Your task to perform on an android device: Clear the shopping cart on bestbuy.com. Add "dell xps" to the cart on bestbuy.com Image 0: 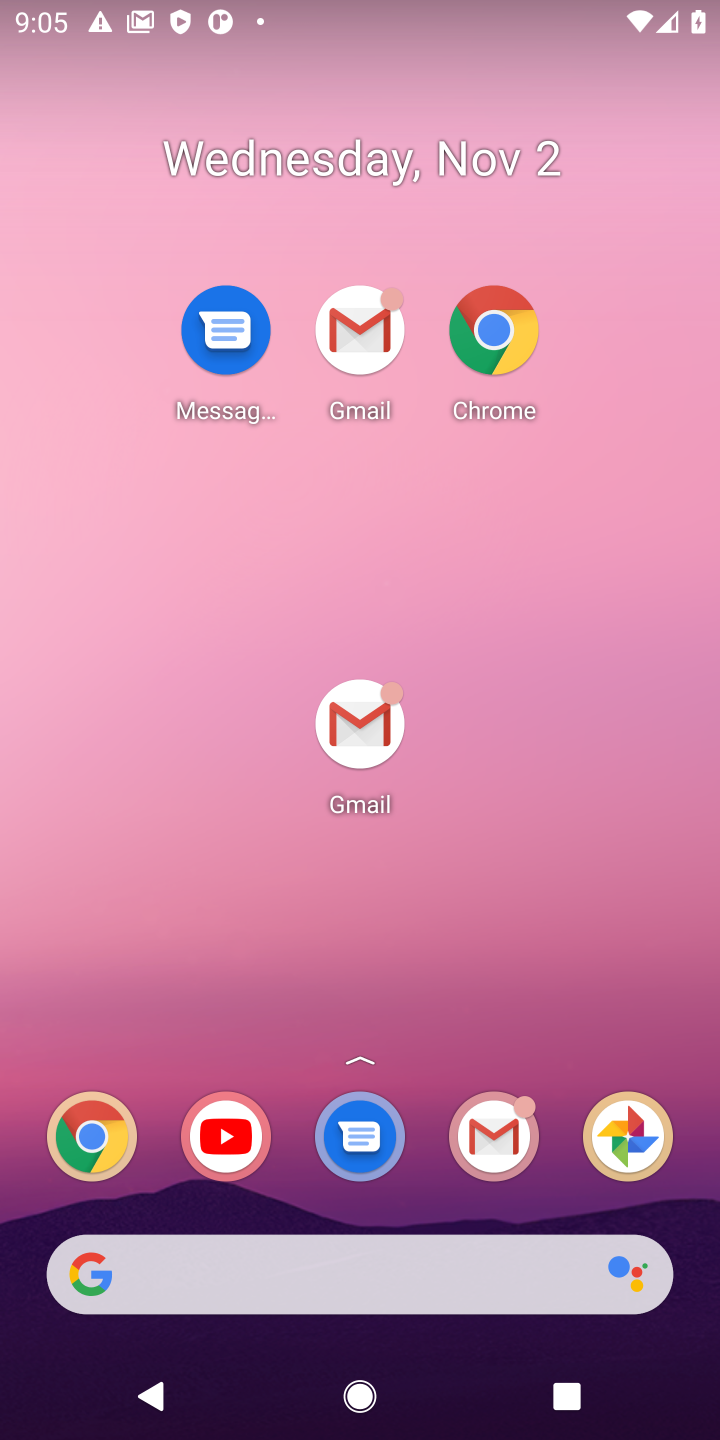
Step 0: drag from (316, 917) to (312, 453)
Your task to perform on an android device: Clear the shopping cart on bestbuy.com. Add "dell xps" to the cart on bestbuy.com Image 1: 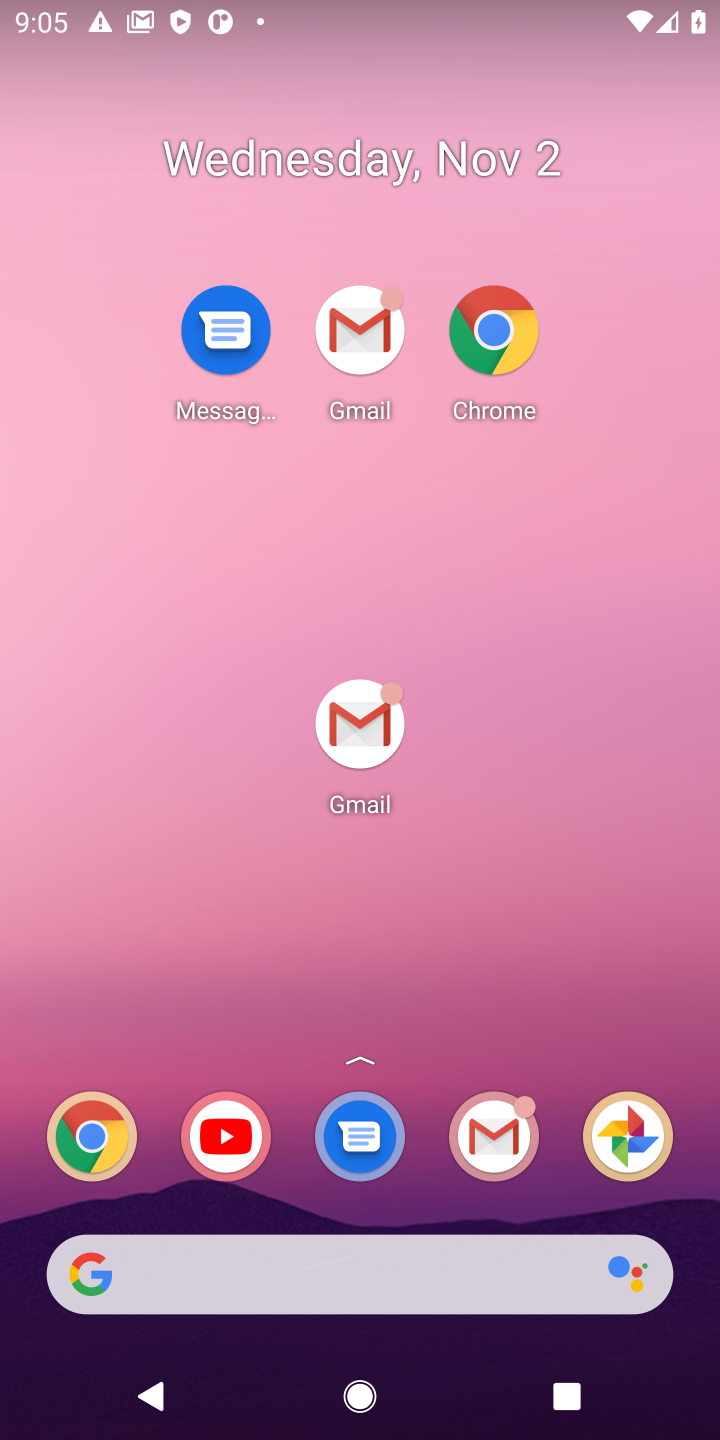
Step 1: drag from (288, 1182) to (303, 184)
Your task to perform on an android device: Clear the shopping cart on bestbuy.com. Add "dell xps" to the cart on bestbuy.com Image 2: 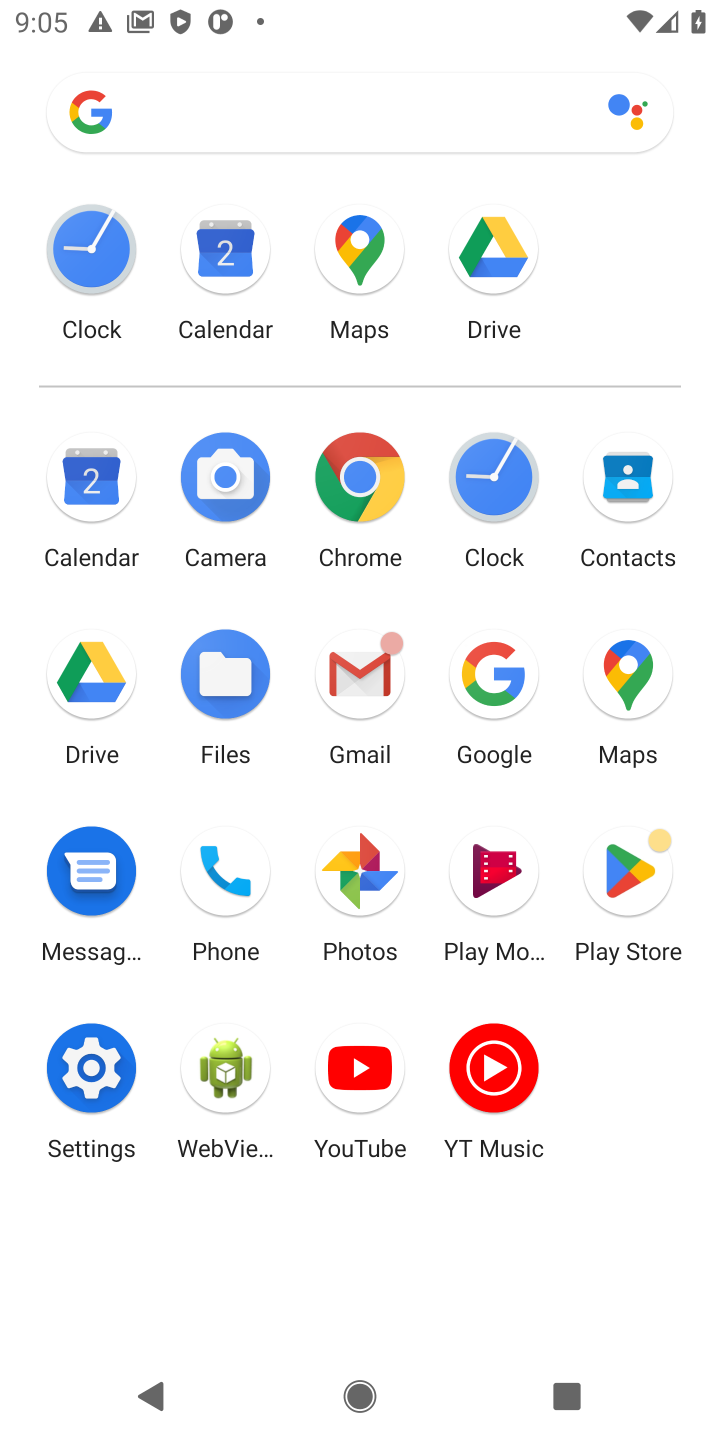
Step 2: click (488, 639)
Your task to perform on an android device: Clear the shopping cart on bestbuy.com. Add "dell xps" to the cart on bestbuy.com Image 3: 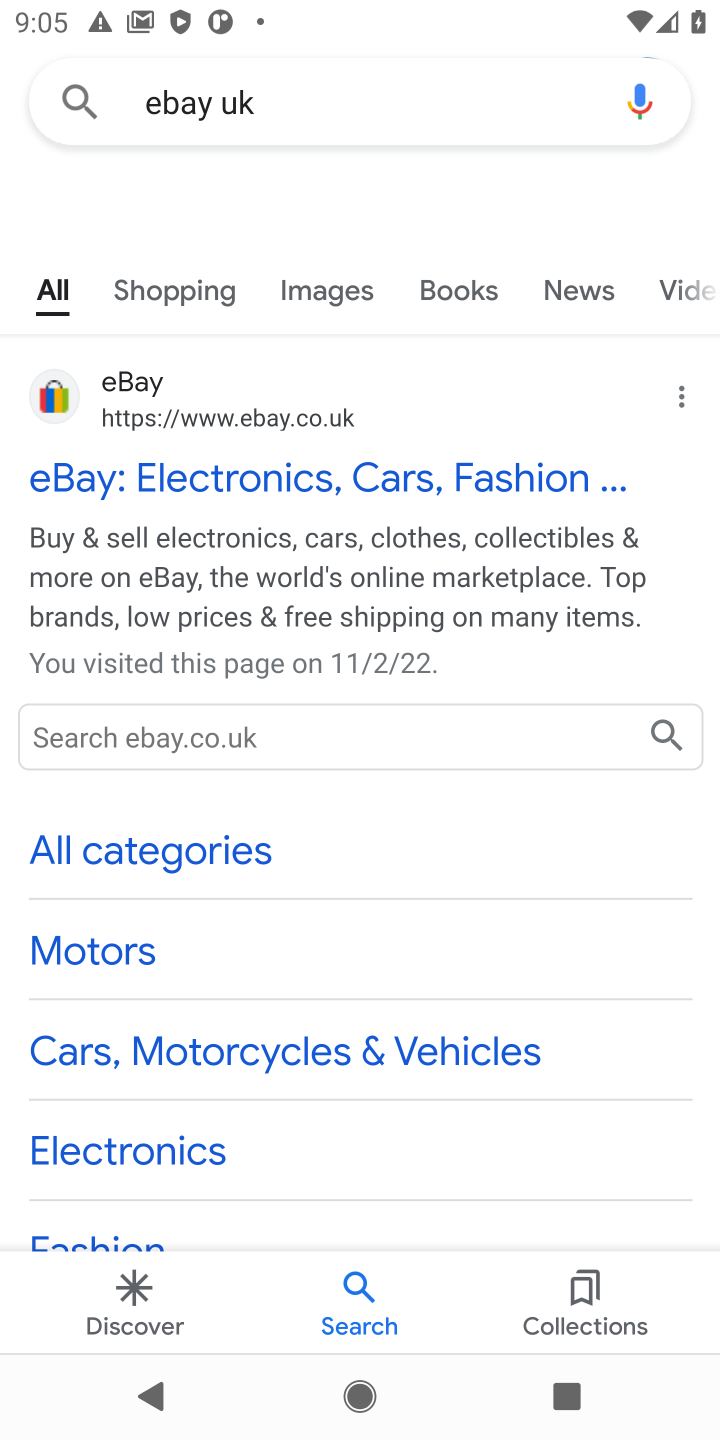
Step 3: click (299, 91)
Your task to perform on an android device: Clear the shopping cart on bestbuy.com. Add "dell xps" to the cart on bestbuy.com Image 4: 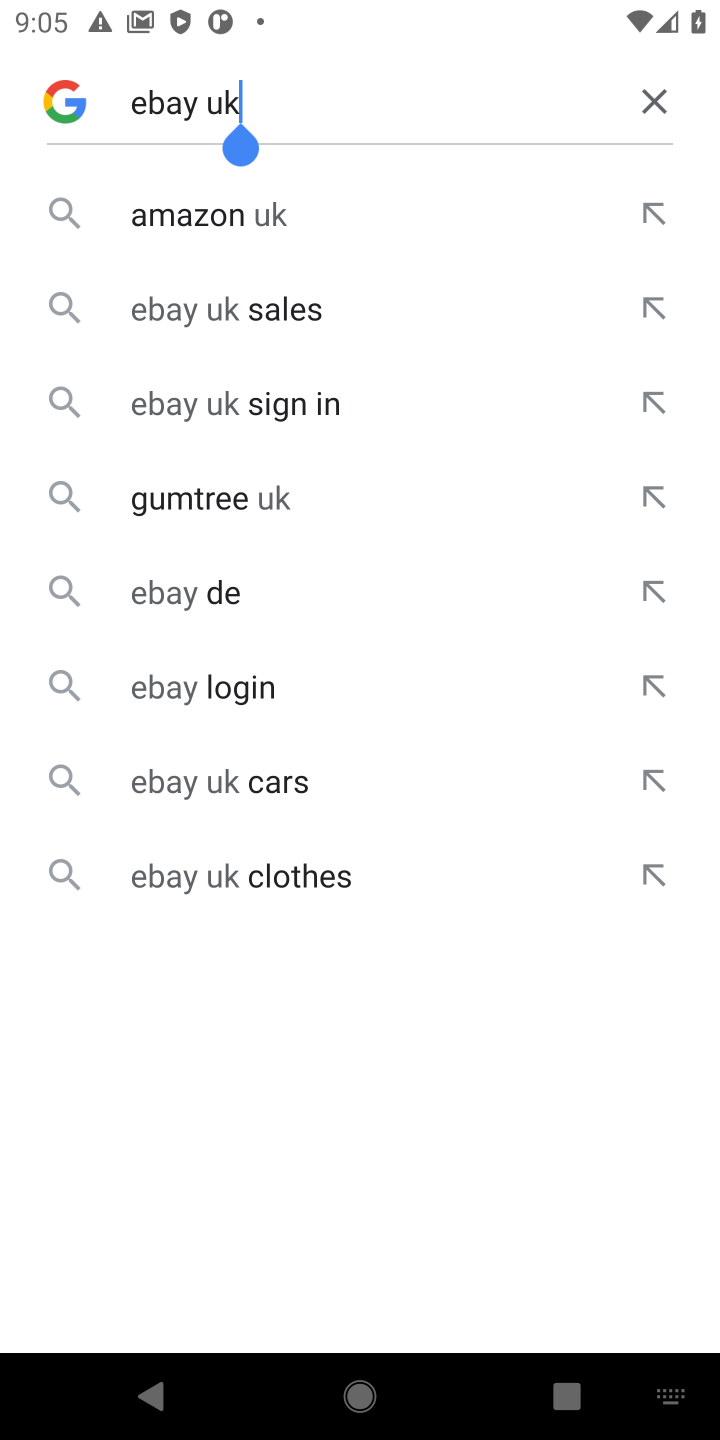
Step 4: click (644, 91)
Your task to perform on an android device: Clear the shopping cart on bestbuy.com. Add "dell xps" to the cart on bestbuy.com Image 5: 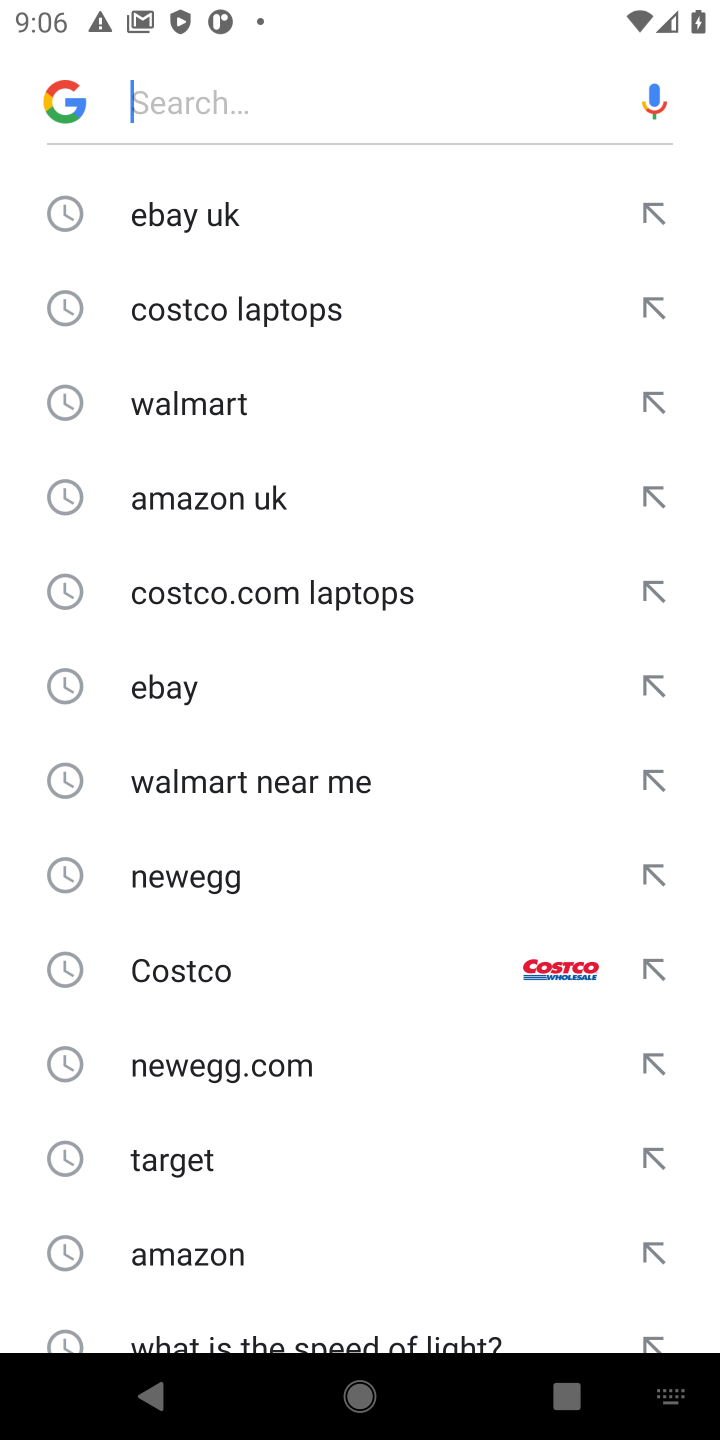
Step 5: click (311, 95)
Your task to perform on an android device: Clear the shopping cart on bestbuy.com. Add "dell xps" to the cart on bestbuy.com Image 6: 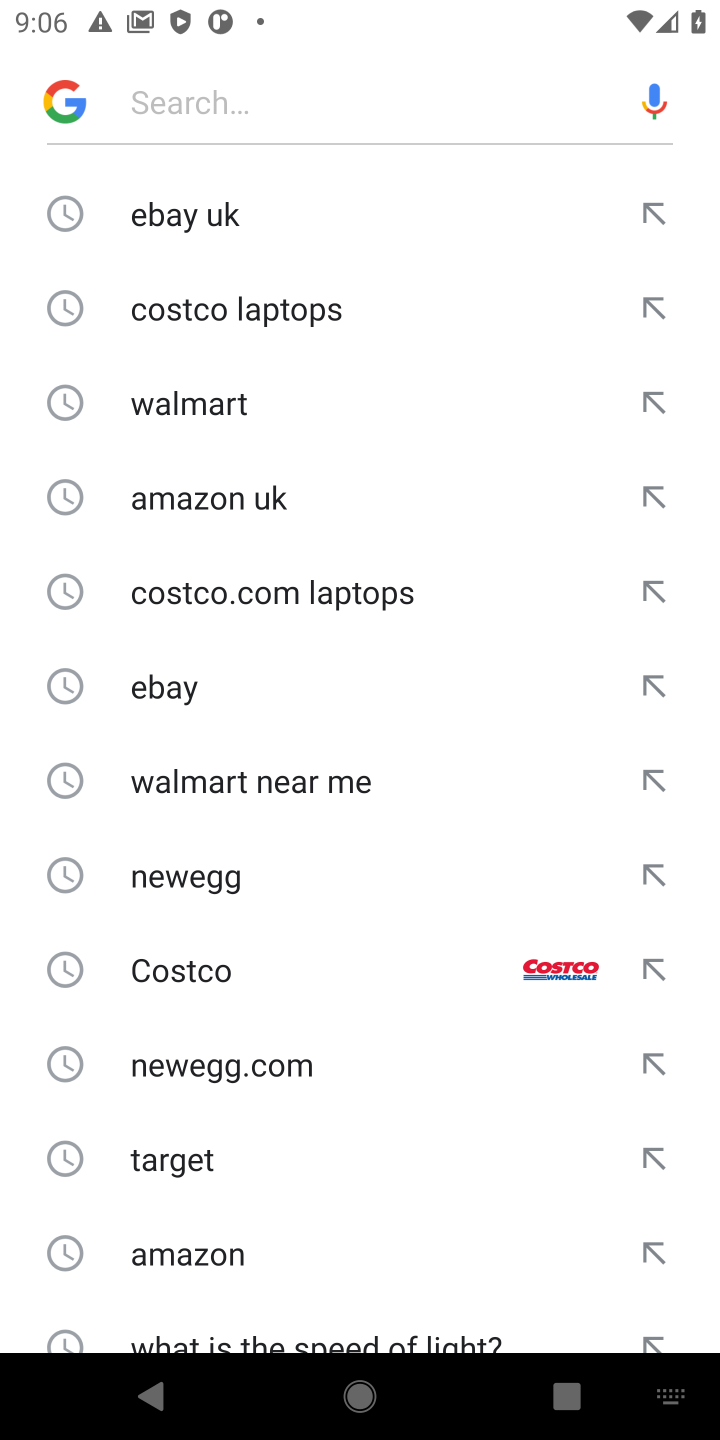
Step 6: type "bestbuy "
Your task to perform on an android device: Clear the shopping cart on bestbuy.com. Add "dell xps" to the cart on bestbuy.com Image 7: 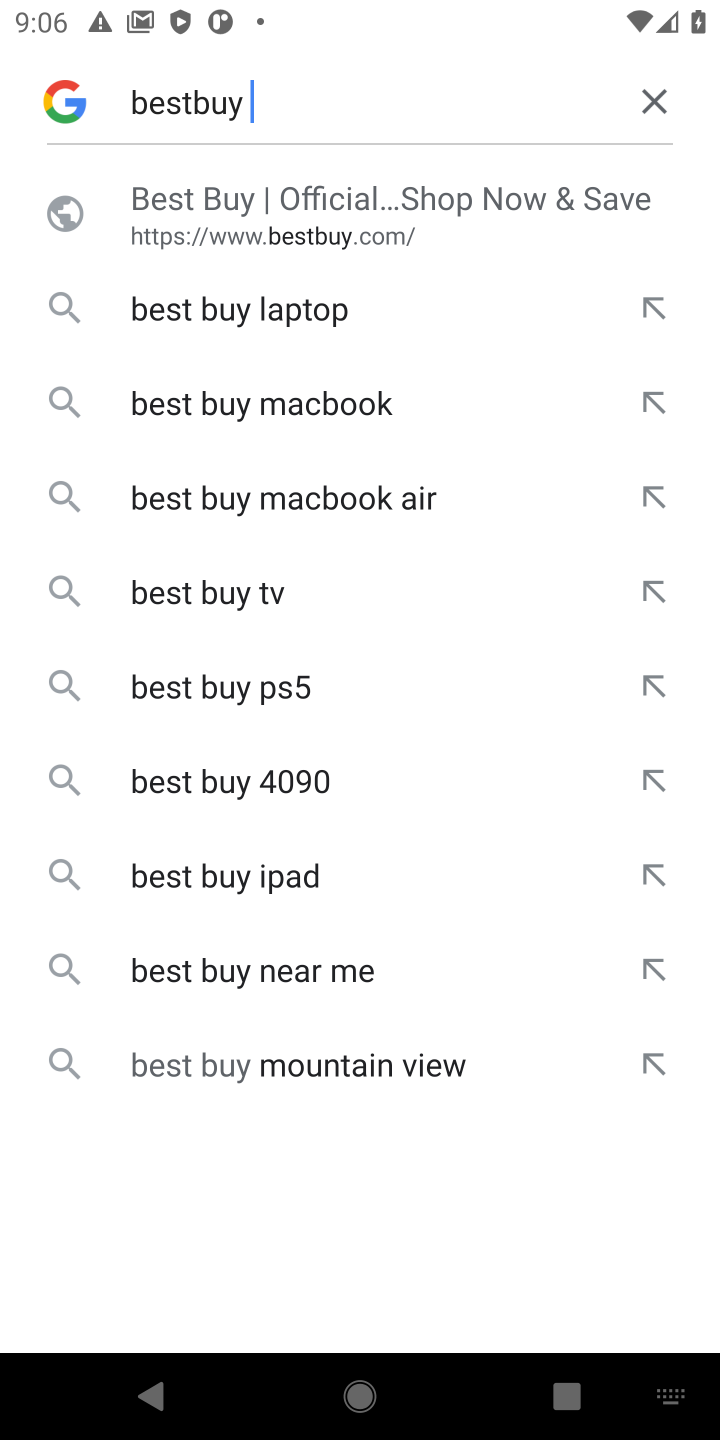
Step 7: click (219, 228)
Your task to perform on an android device: Clear the shopping cart on bestbuy.com. Add "dell xps" to the cart on bestbuy.com Image 8: 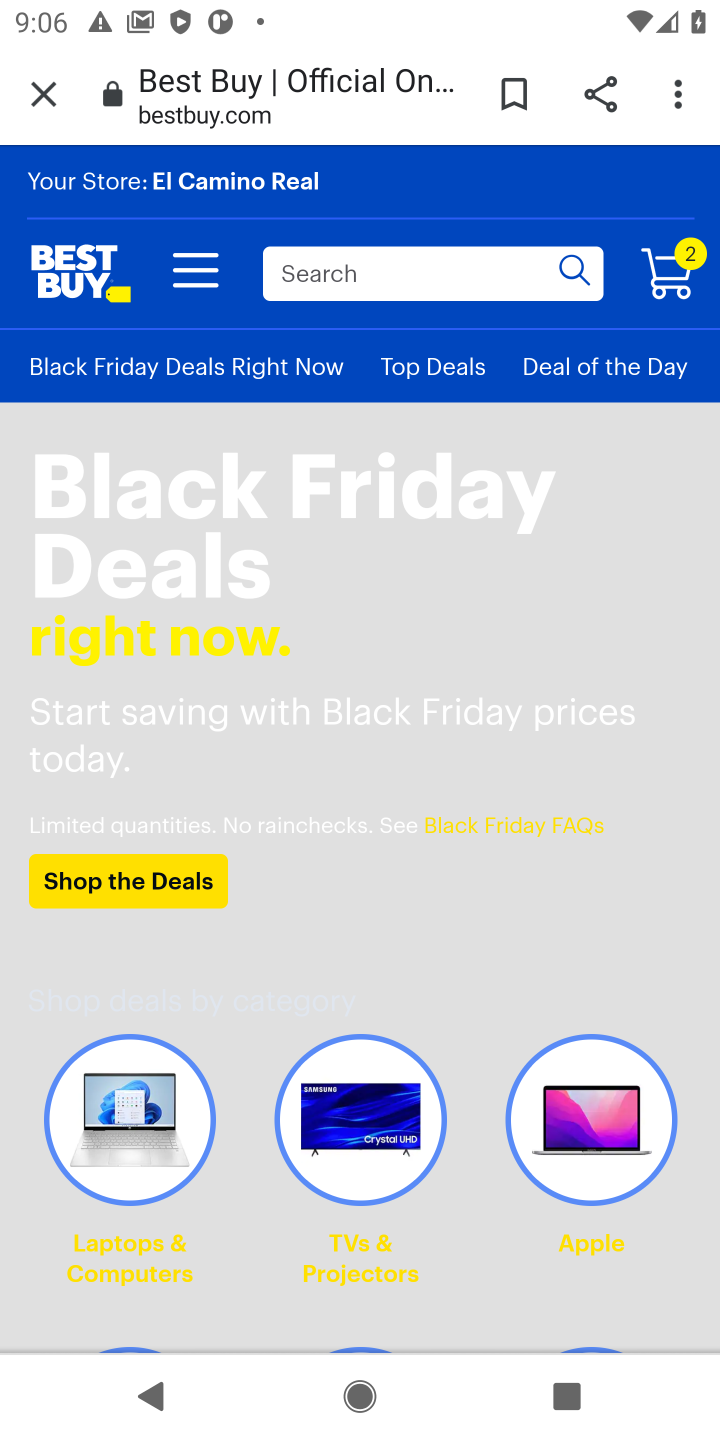
Step 8: click (319, 264)
Your task to perform on an android device: Clear the shopping cart on bestbuy.com. Add "dell xps" to the cart on bestbuy.com Image 9: 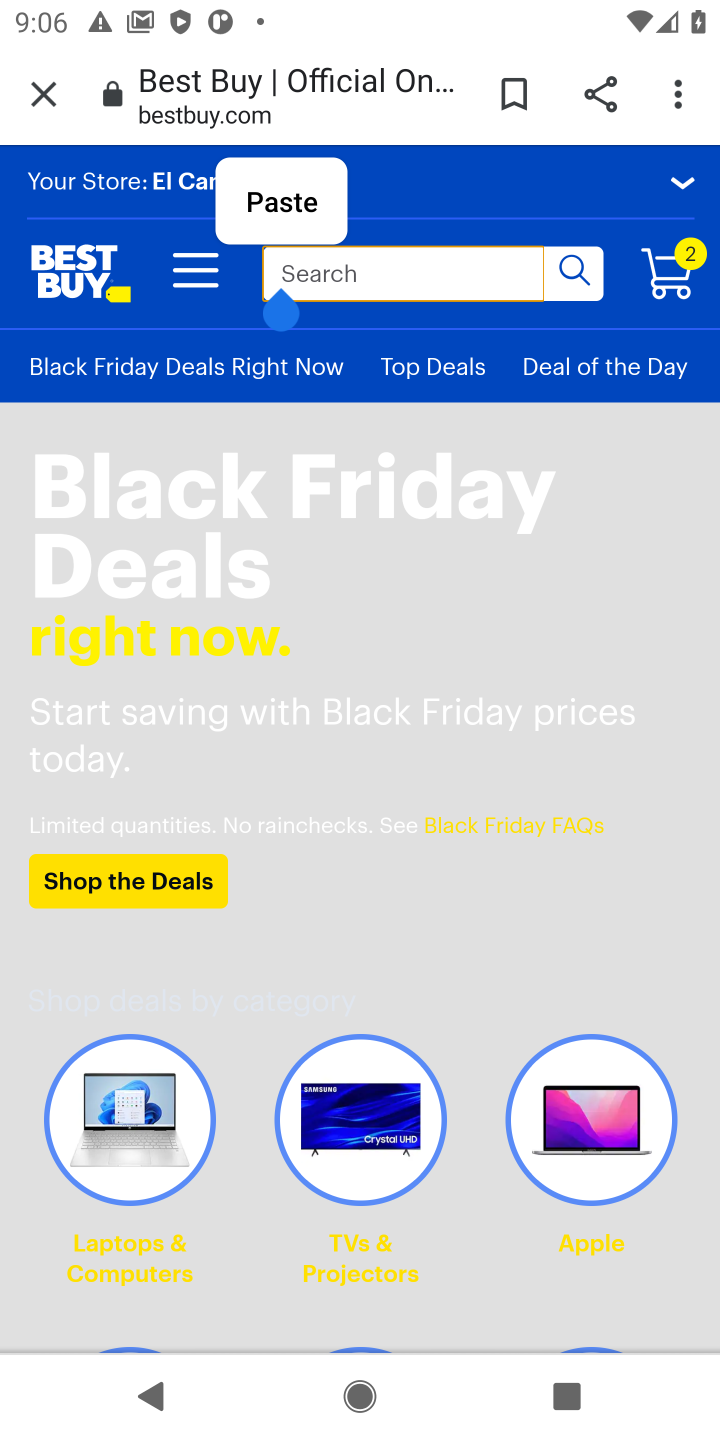
Step 9: click (386, 264)
Your task to perform on an android device: Clear the shopping cart on bestbuy.com. Add "dell xps" to the cart on bestbuy.com Image 10: 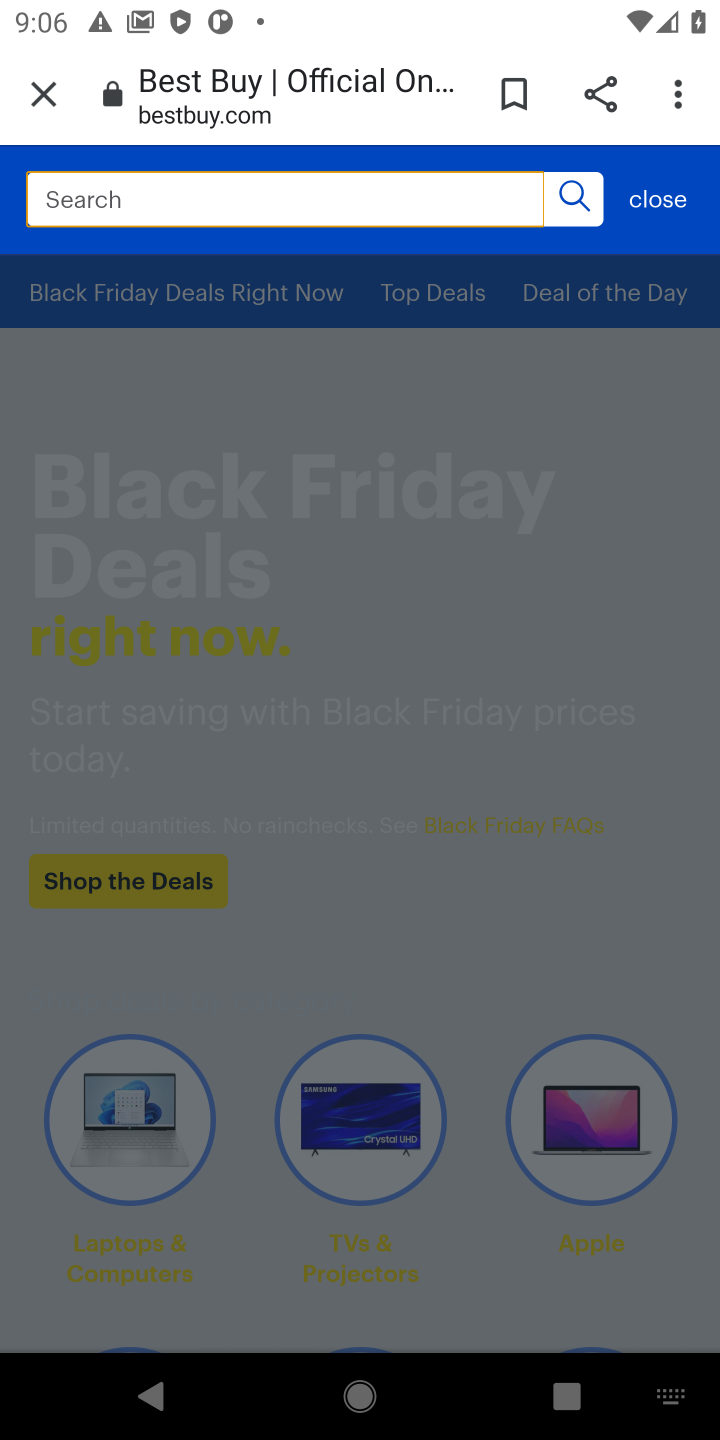
Step 10: type "dell xps "
Your task to perform on an android device: Clear the shopping cart on bestbuy.com. Add "dell xps" to the cart on bestbuy.com Image 11: 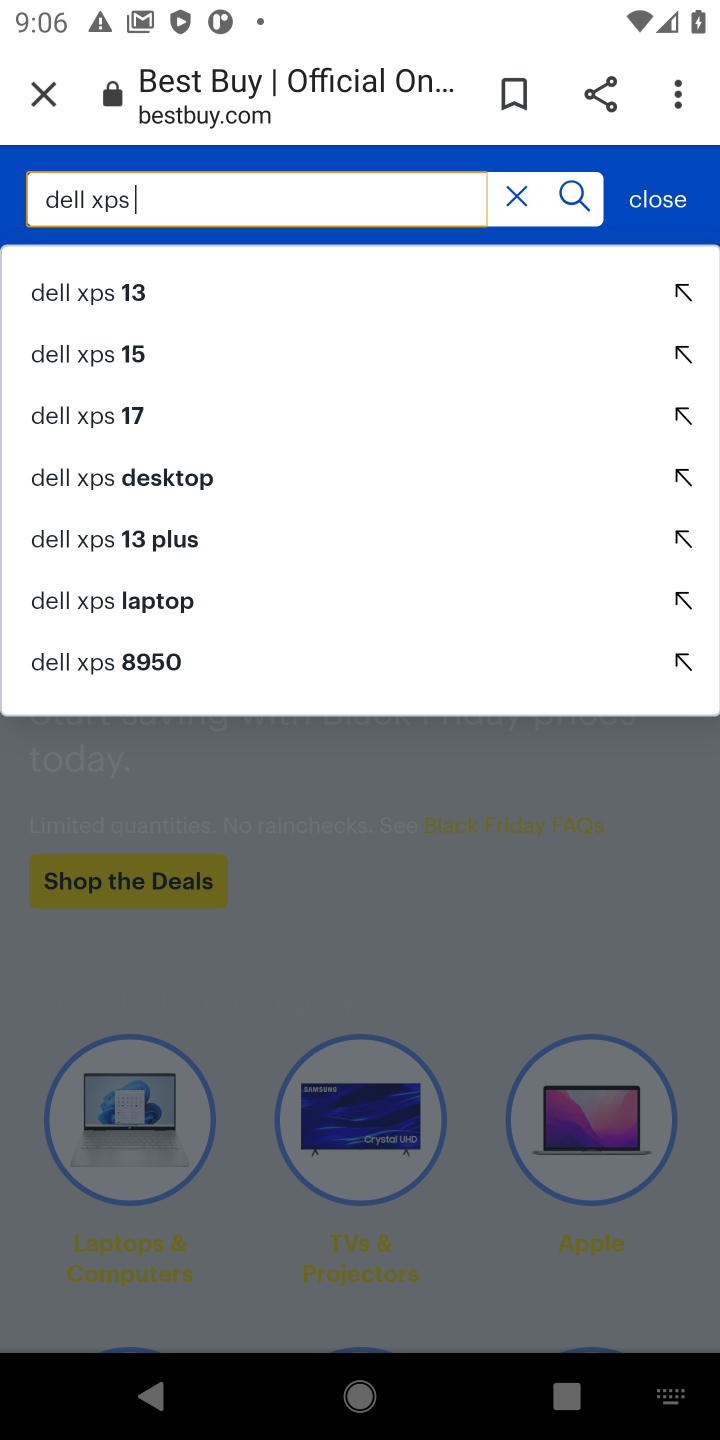
Step 11: click (107, 287)
Your task to perform on an android device: Clear the shopping cart on bestbuy.com. Add "dell xps" to the cart on bestbuy.com Image 12: 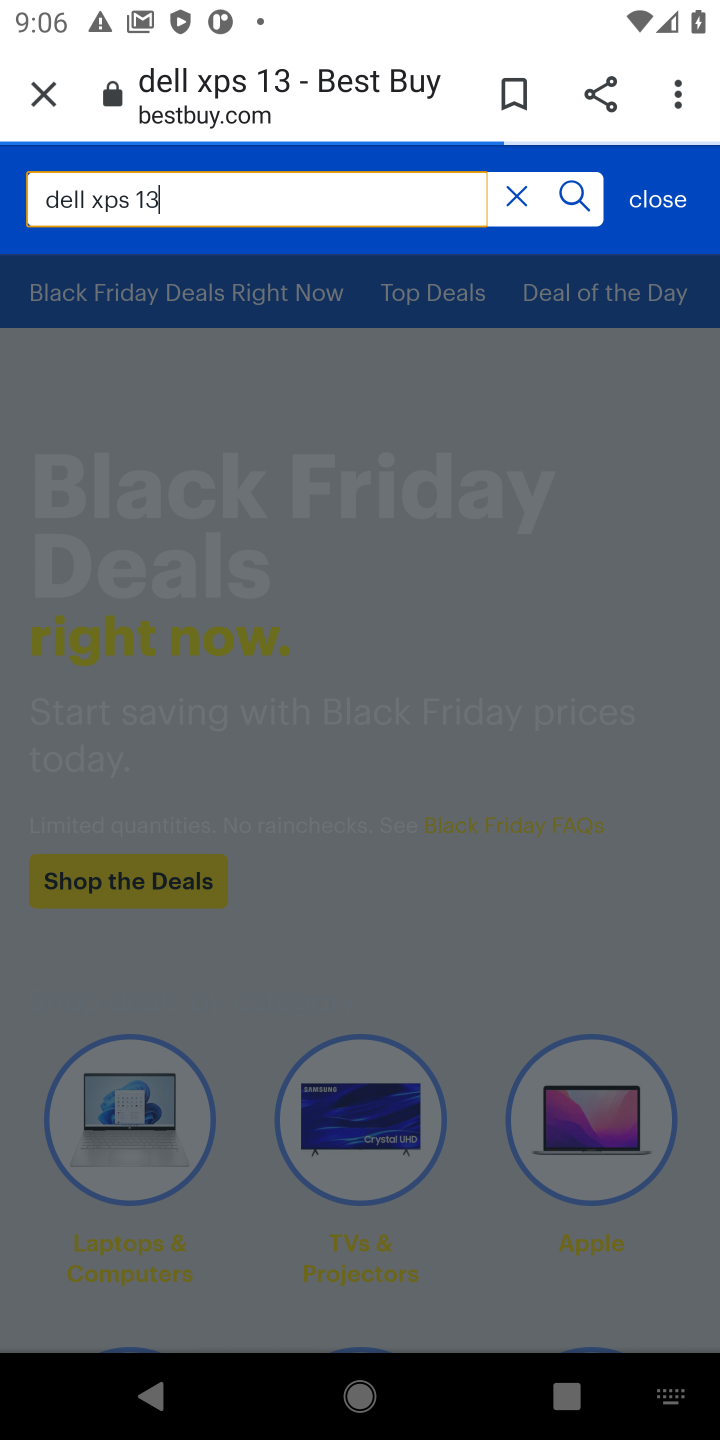
Step 12: click (568, 198)
Your task to perform on an android device: Clear the shopping cart on bestbuy.com. Add "dell xps" to the cart on bestbuy.com Image 13: 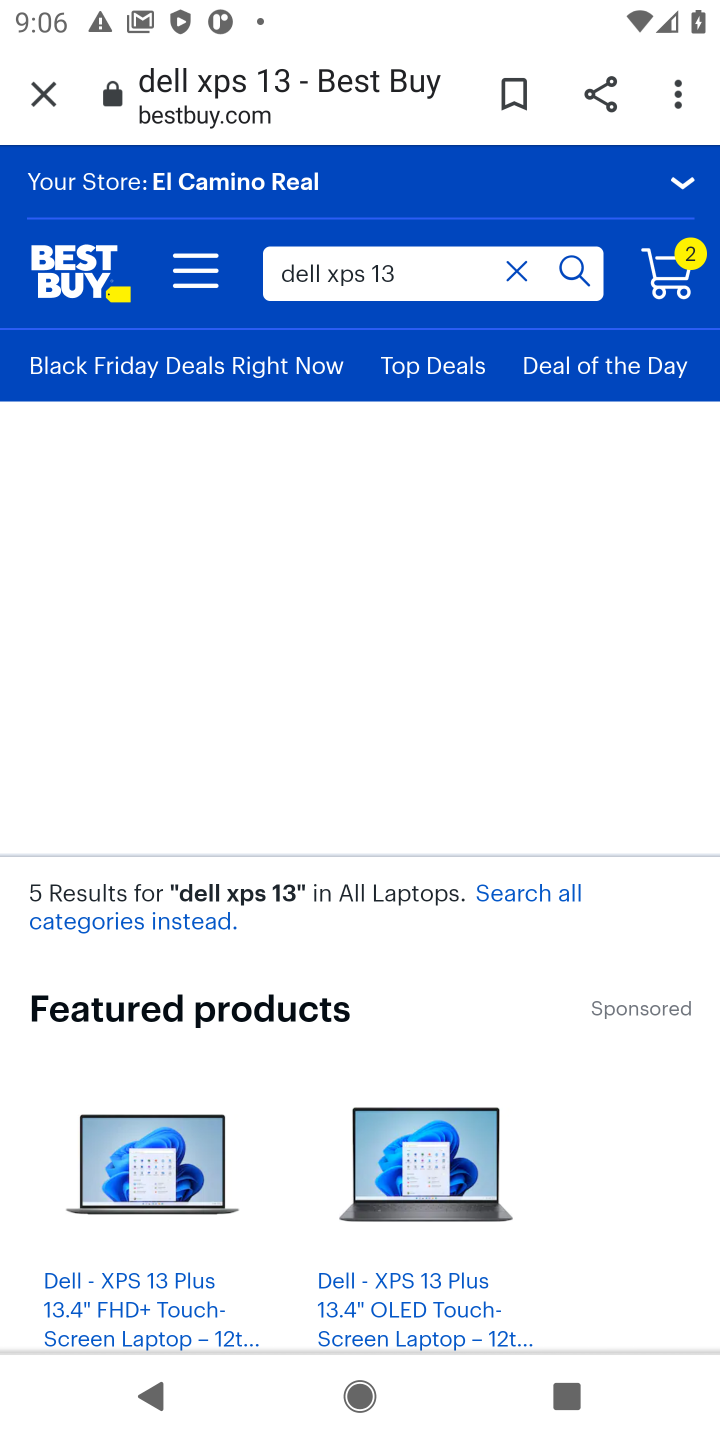
Step 13: drag from (322, 1212) to (382, 524)
Your task to perform on an android device: Clear the shopping cart on bestbuy.com. Add "dell xps" to the cart on bestbuy.com Image 14: 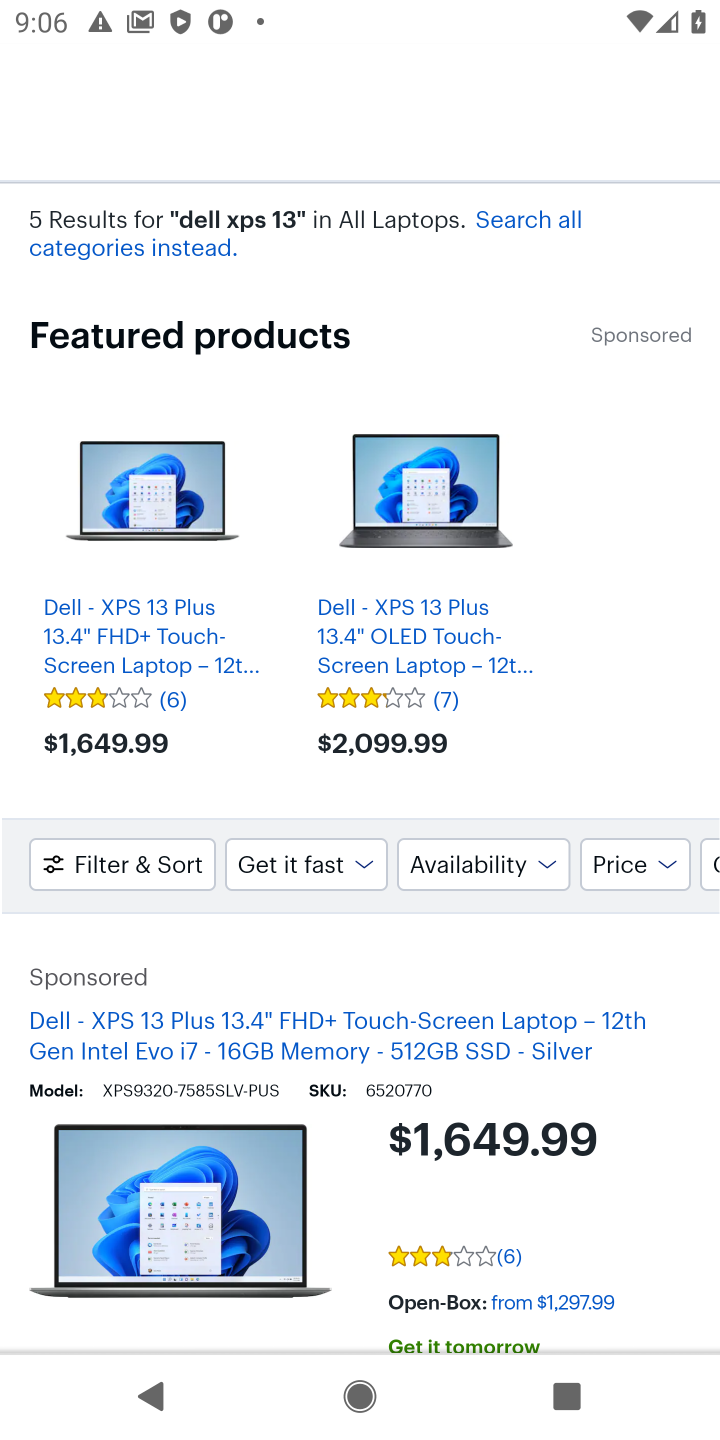
Step 14: click (138, 611)
Your task to perform on an android device: Clear the shopping cart on bestbuy.com. Add "dell xps" to the cart on bestbuy.com Image 15: 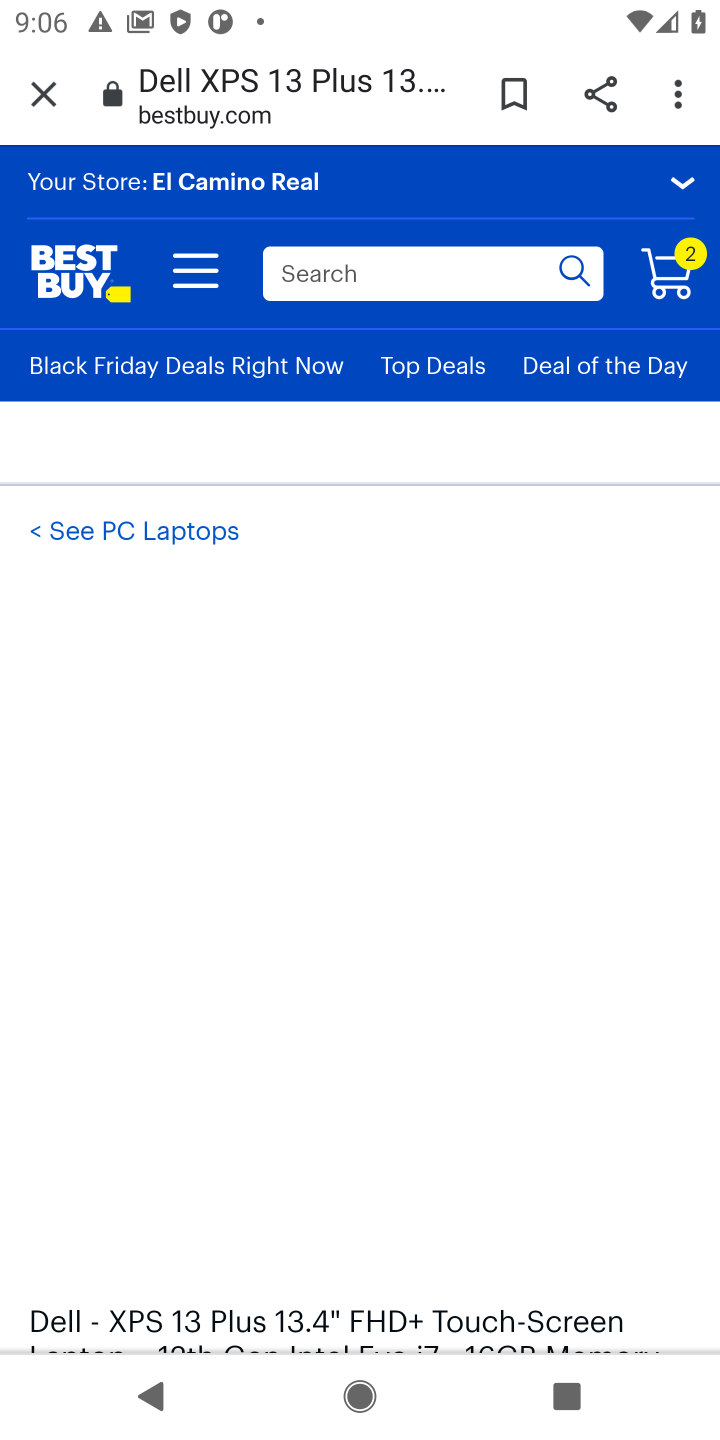
Step 15: drag from (473, 1217) to (464, 425)
Your task to perform on an android device: Clear the shopping cart on bestbuy.com. Add "dell xps" to the cart on bestbuy.com Image 16: 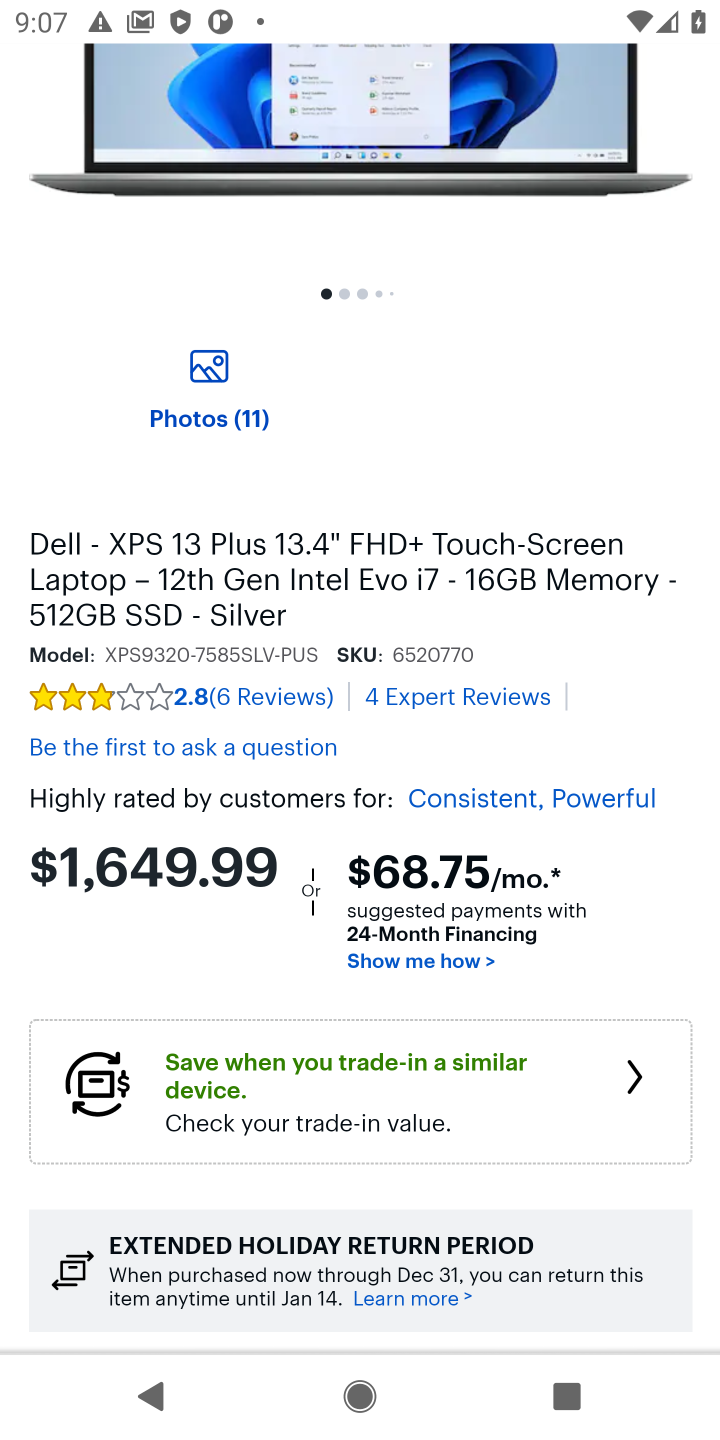
Step 16: drag from (397, 997) to (431, 330)
Your task to perform on an android device: Clear the shopping cart on bestbuy.com. Add "dell xps" to the cart on bestbuy.com Image 17: 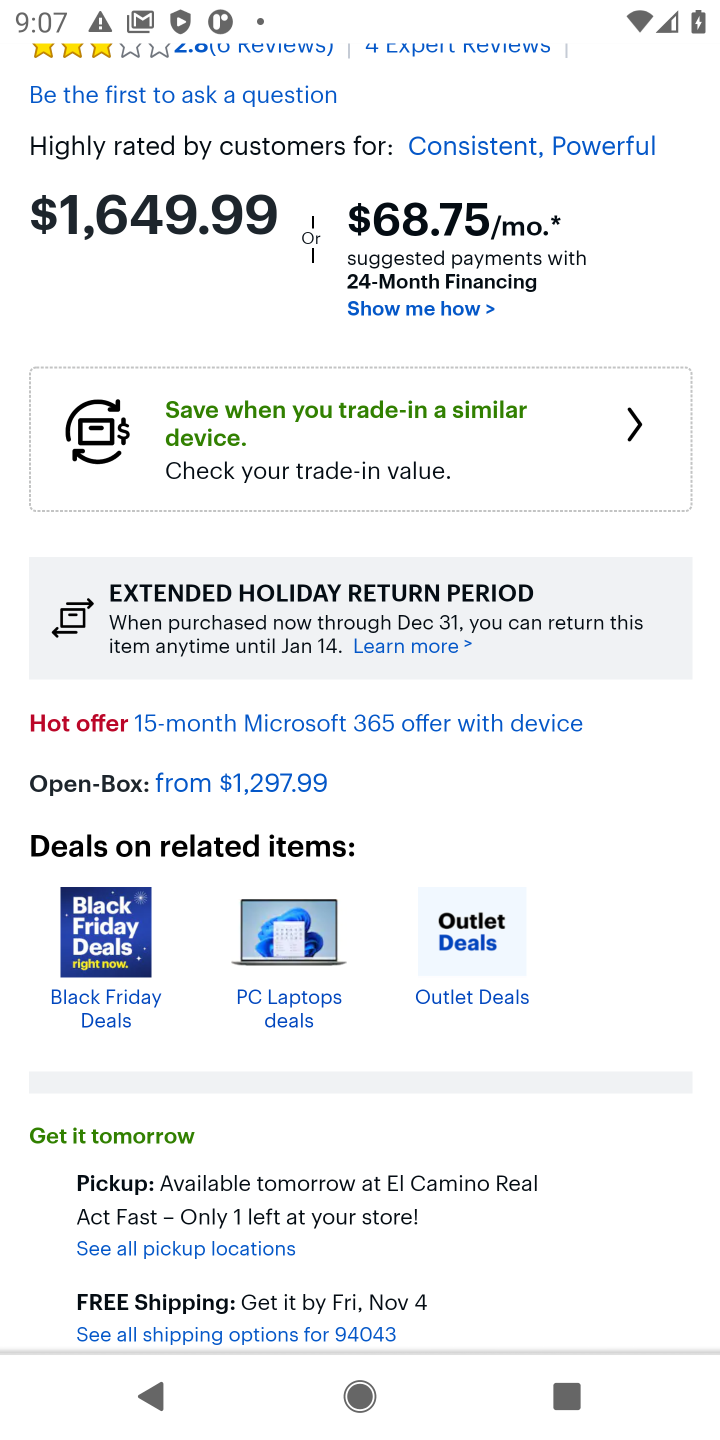
Step 17: drag from (415, 1199) to (438, 241)
Your task to perform on an android device: Clear the shopping cart on bestbuy.com. Add "dell xps" to the cart on bestbuy.com Image 18: 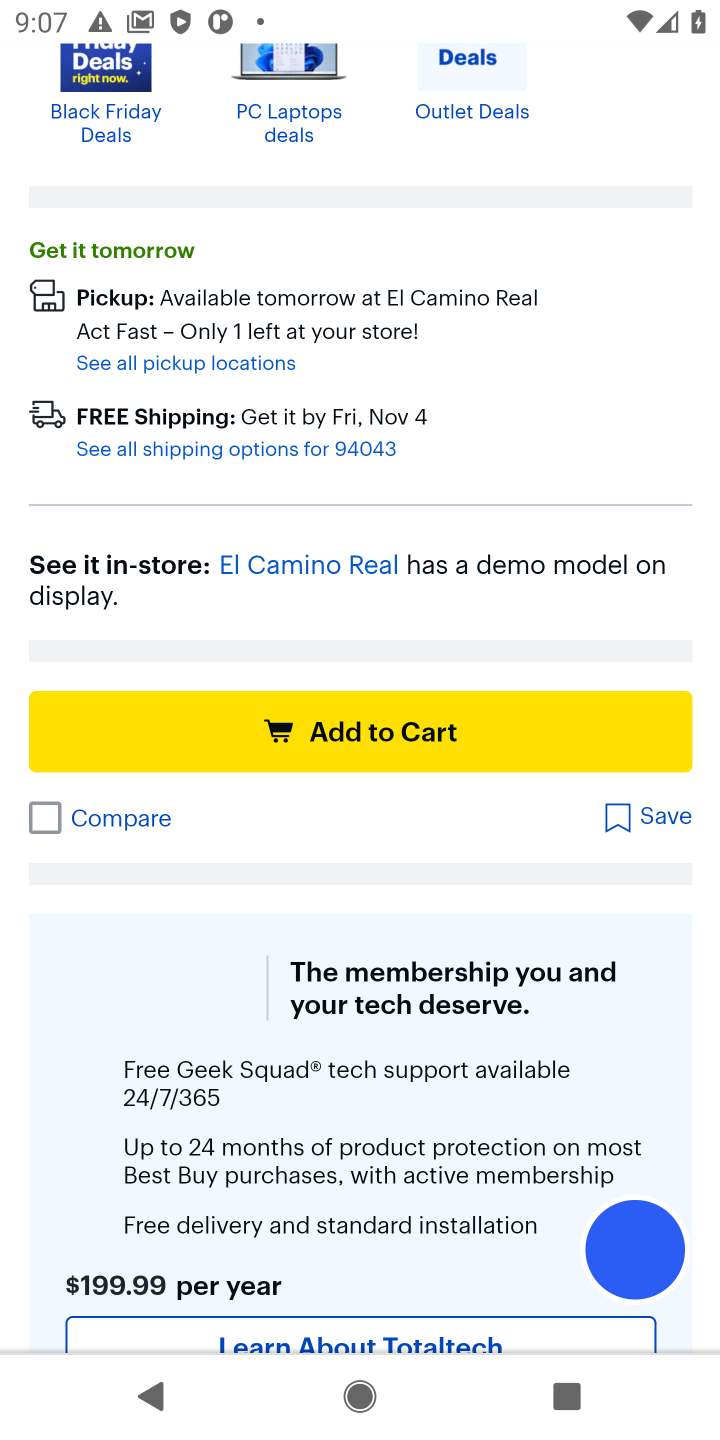
Step 18: click (410, 725)
Your task to perform on an android device: Clear the shopping cart on bestbuy.com. Add "dell xps" to the cart on bestbuy.com Image 19: 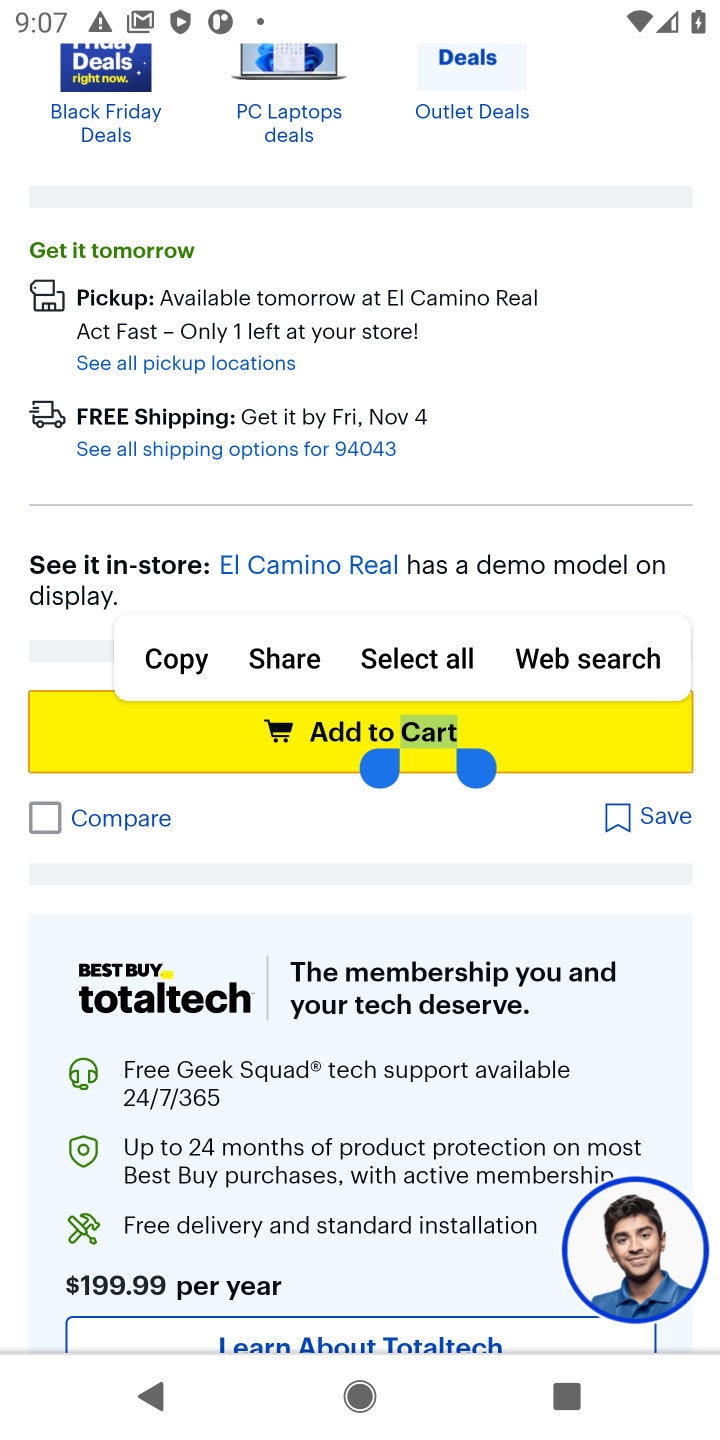
Step 19: click (557, 743)
Your task to perform on an android device: Clear the shopping cart on bestbuy.com. Add "dell xps" to the cart on bestbuy.com Image 20: 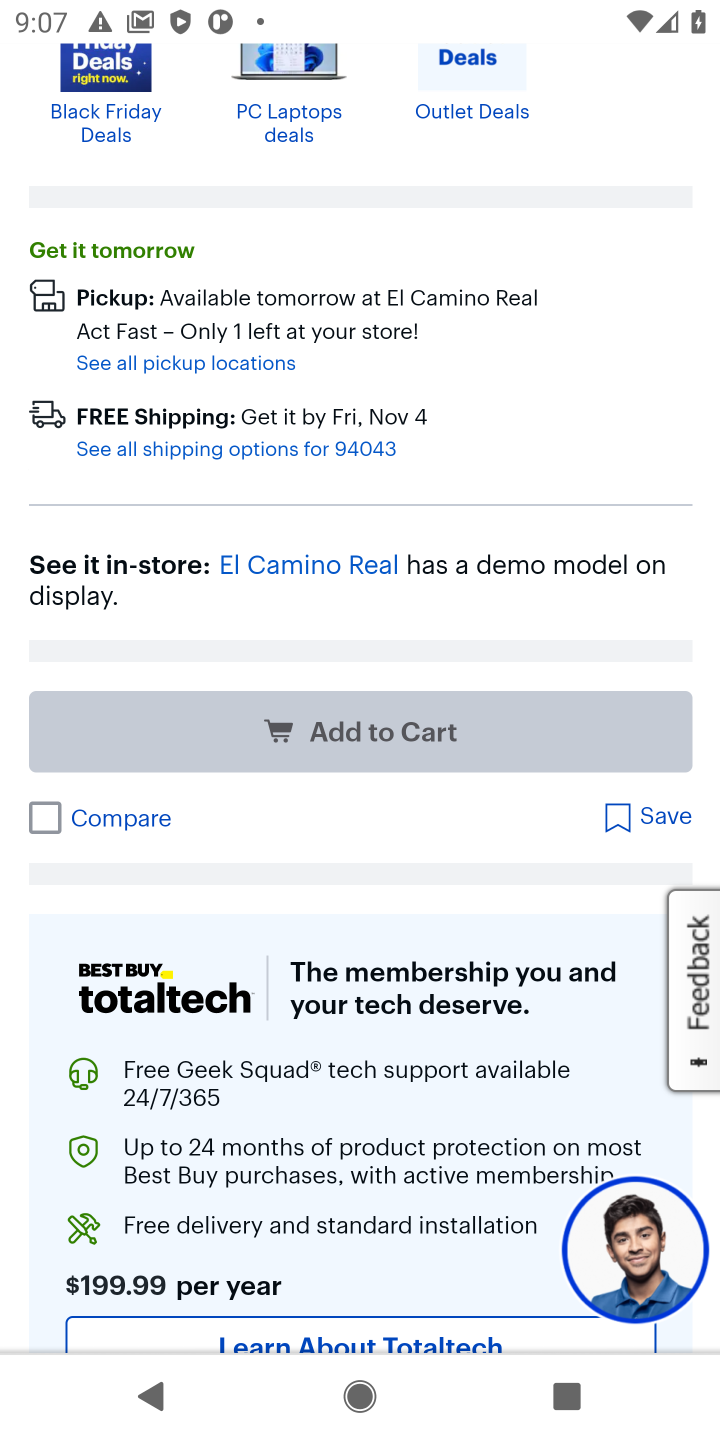
Step 20: task complete